Your task to perform on an android device: turn on data saver in the chrome app Image 0: 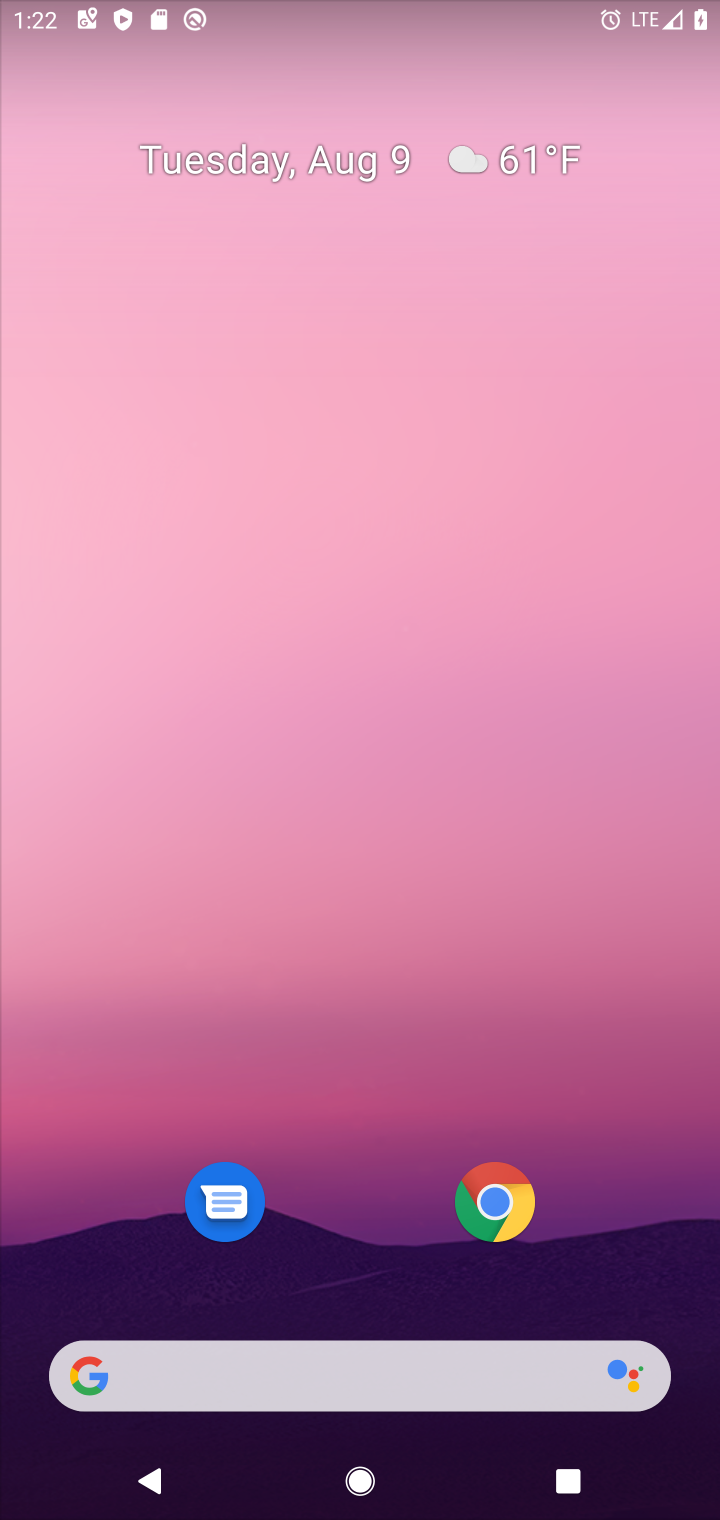
Step 0: click (494, 1201)
Your task to perform on an android device: turn on data saver in the chrome app Image 1: 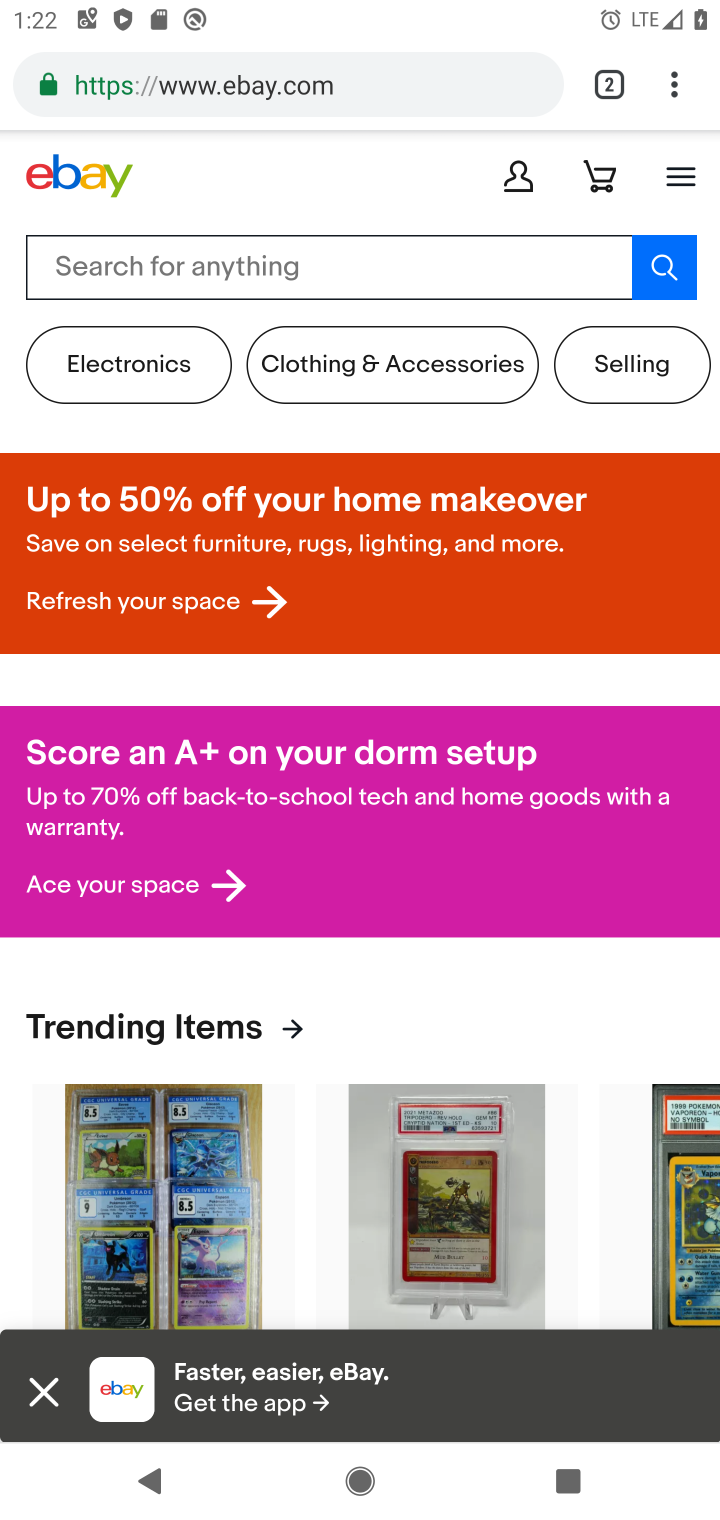
Step 1: click (677, 94)
Your task to perform on an android device: turn on data saver in the chrome app Image 2: 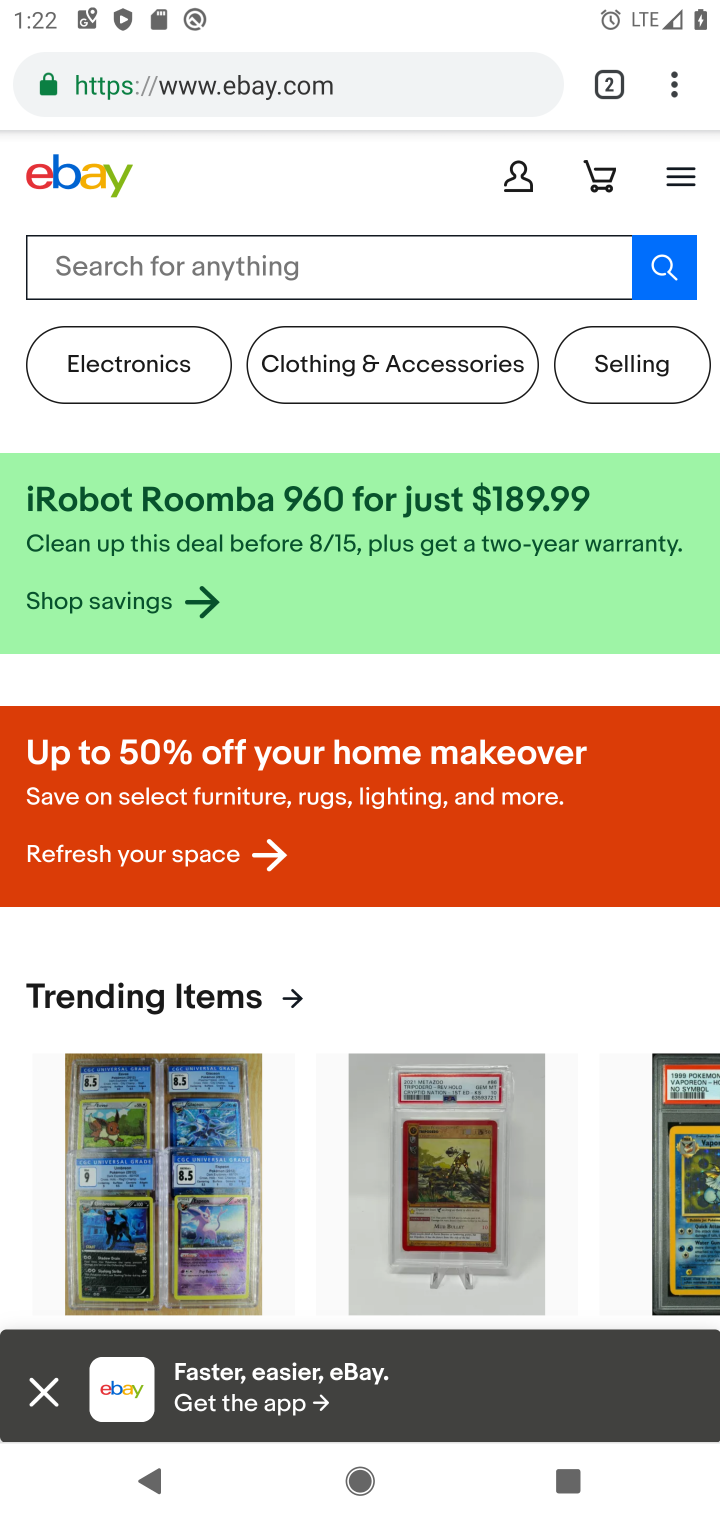
Step 2: click (674, 87)
Your task to perform on an android device: turn on data saver in the chrome app Image 3: 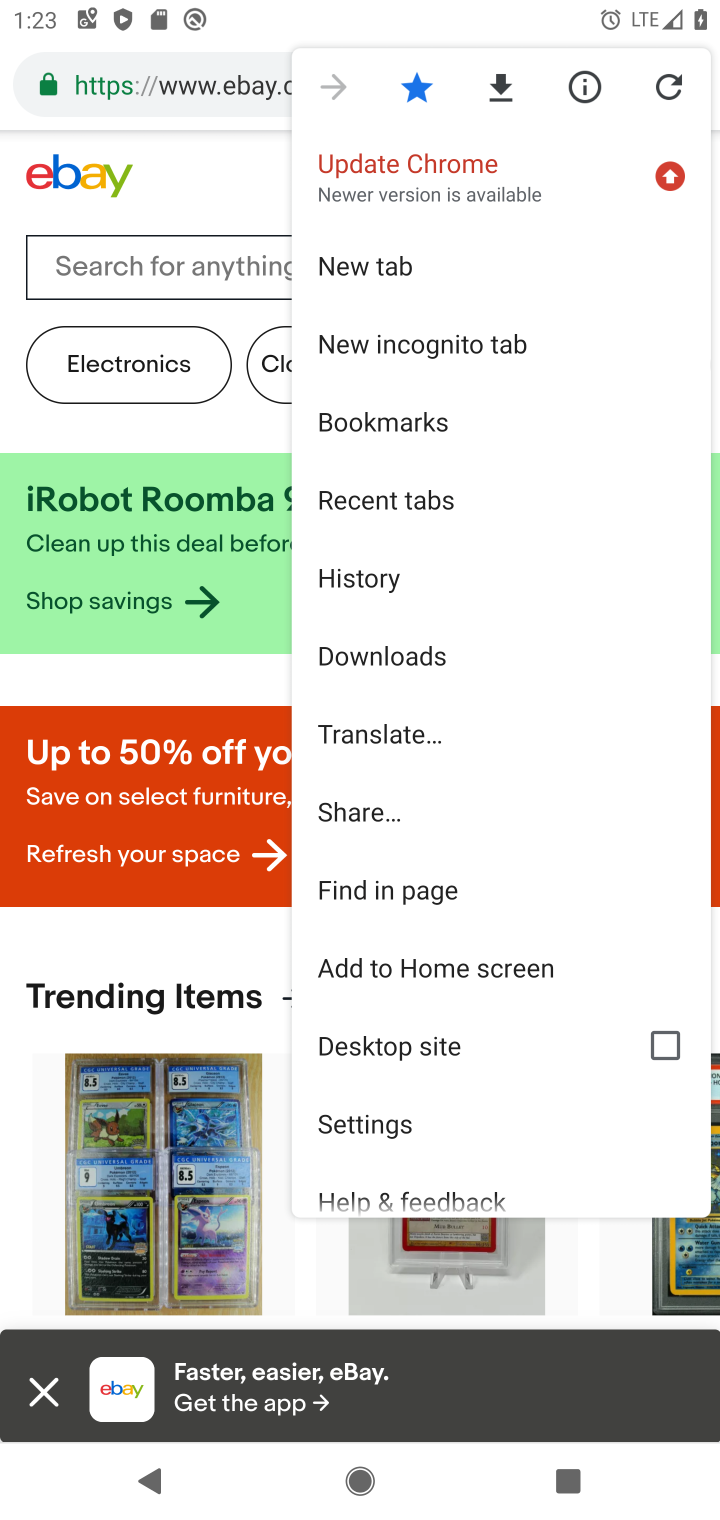
Step 3: click (386, 1127)
Your task to perform on an android device: turn on data saver in the chrome app Image 4: 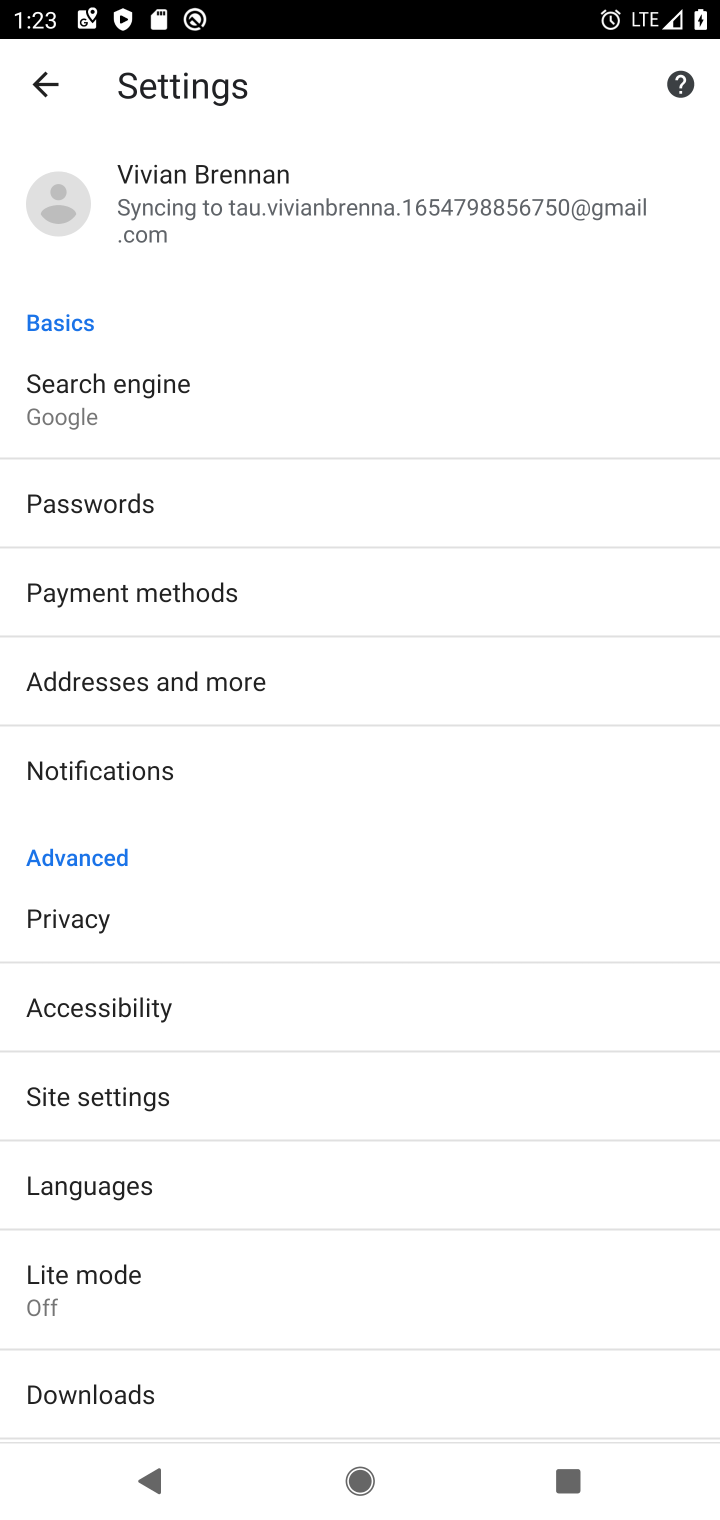
Step 4: click (168, 1288)
Your task to perform on an android device: turn on data saver in the chrome app Image 5: 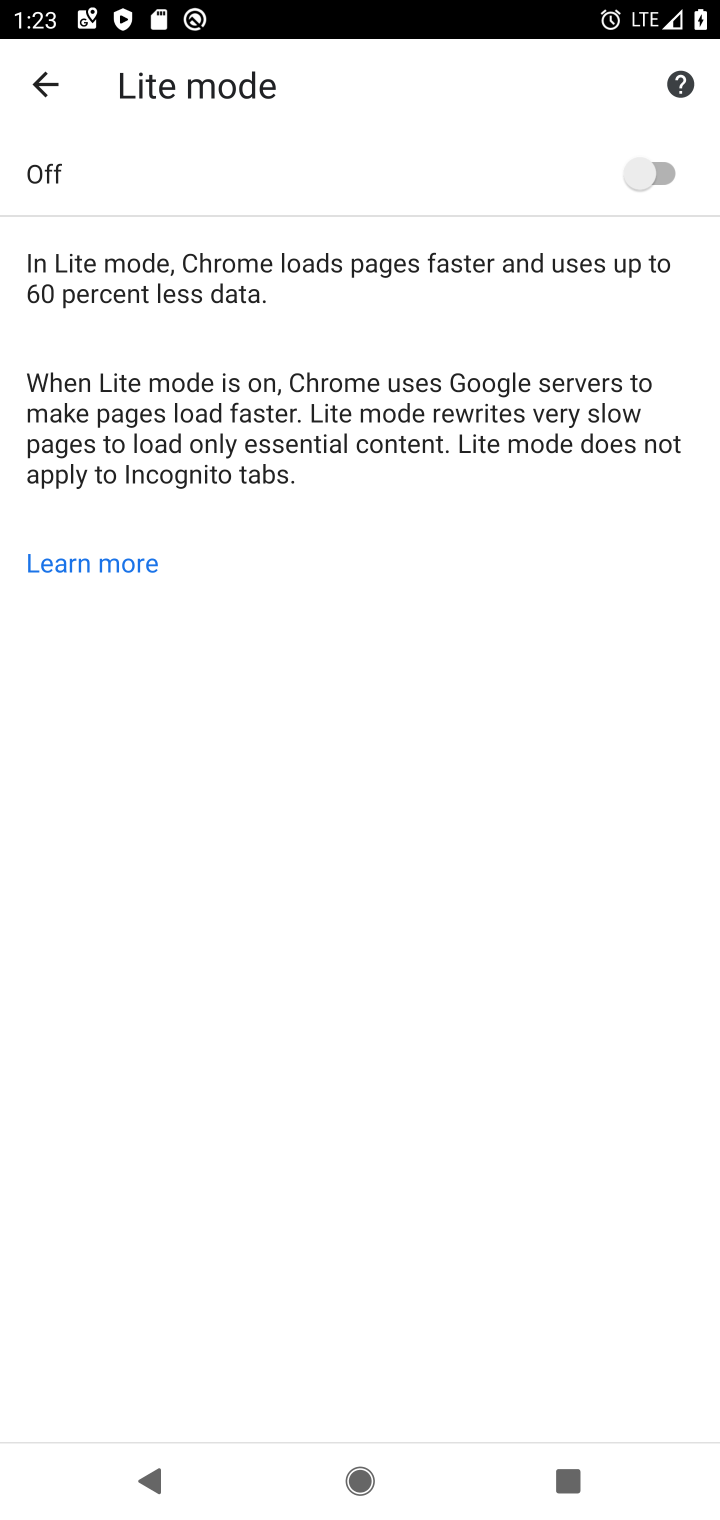
Step 5: click (683, 170)
Your task to perform on an android device: turn on data saver in the chrome app Image 6: 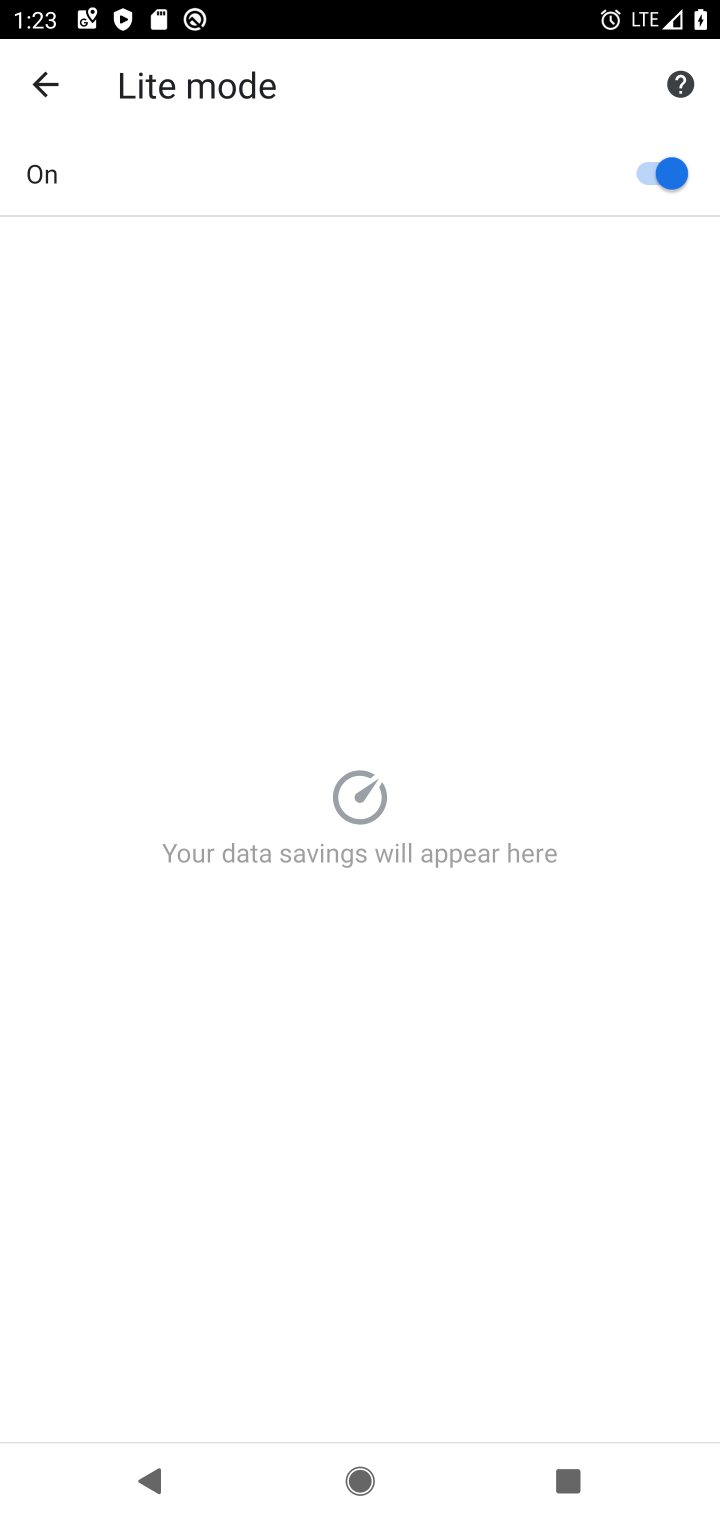
Step 6: task complete